Your task to perform on an android device: open a bookmark in the chrome app Image 0: 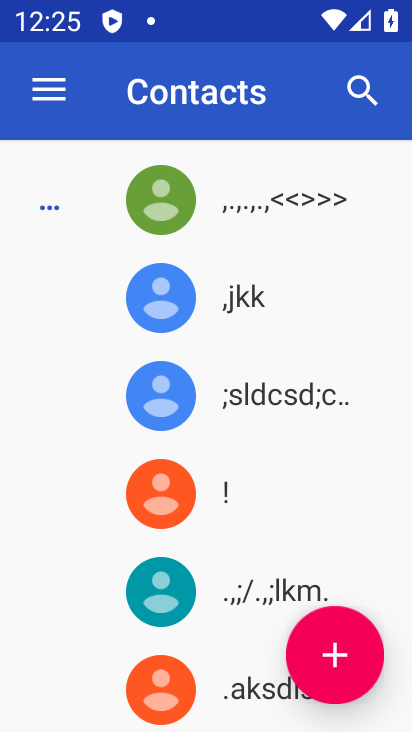
Step 0: press home button
Your task to perform on an android device: open a bookmark in the chrome app Image 1: 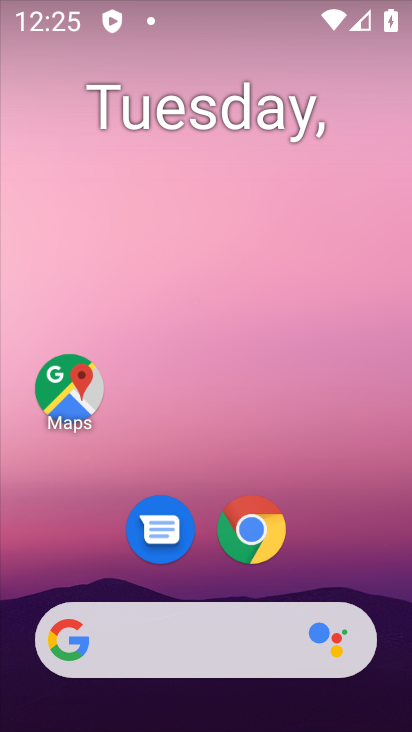
Step 1: click (263, 521)
Your task to perform on an android device: open a bookmark in the chrome app Image 2: 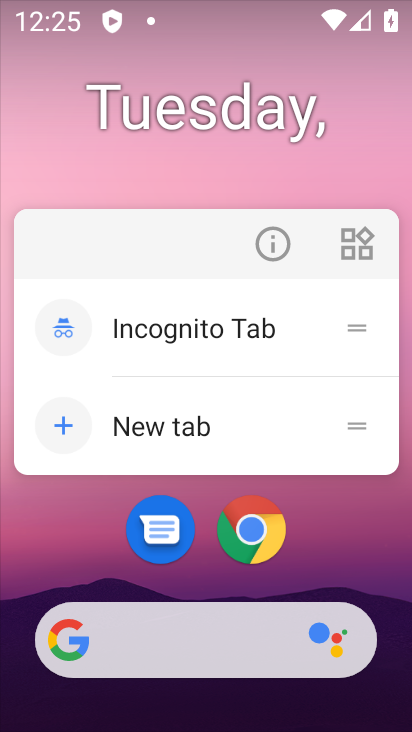
Step 2: click (257, 530)
Your task to perform on an android device: open a bookmark in the chrome app Image 3: 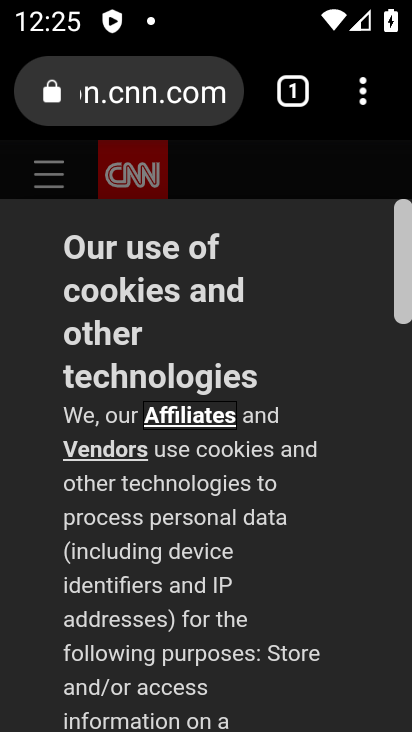
Step 3: task complete